Your task to perform on an android device: Open settings Image 0: 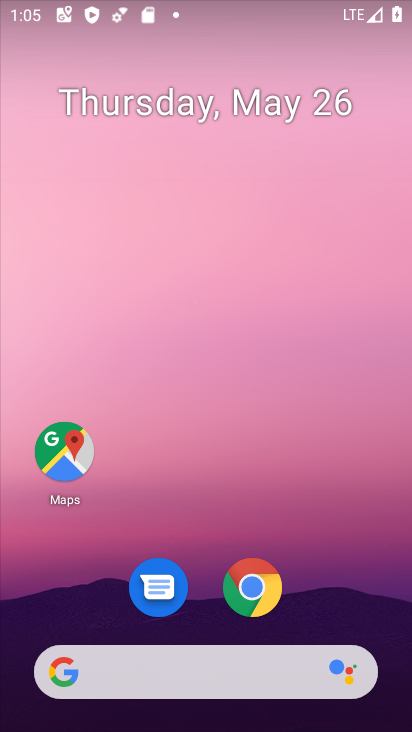
Step 0: drag from (351, 596) to (372, 210)
Your task to perform on an android device: Open settings Image 1: 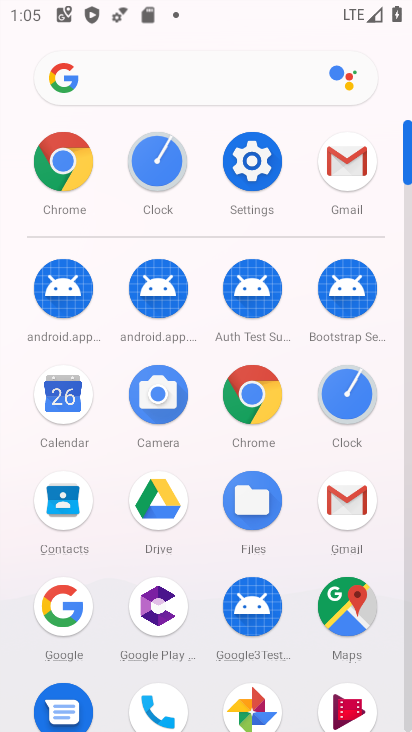
Step 1: click (249, 173)
Your task to perform on an android device: Open settings Image 2: 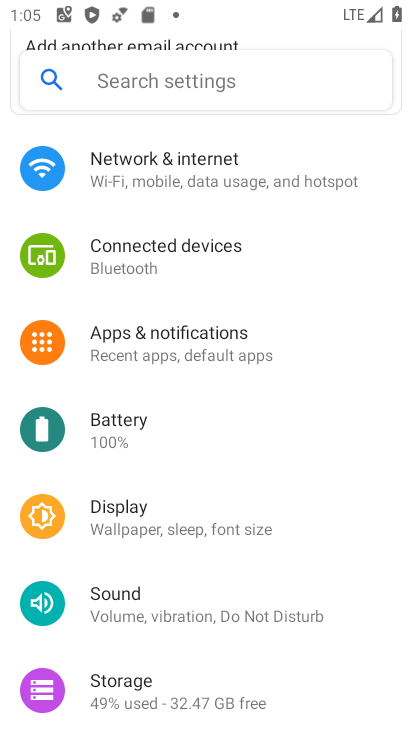
Step 2: task complete